Your task to perform on an android device: Open eBay Image 0: 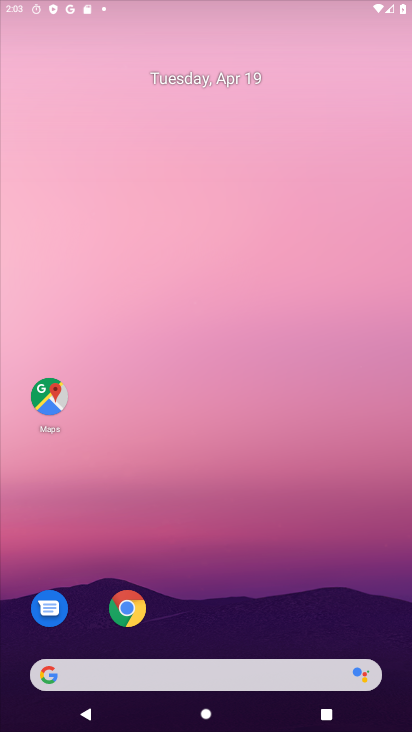
Step 0: drag from (312, 605) to (331, 295)
Your task to perform on an android device: Open eBay Image 1: 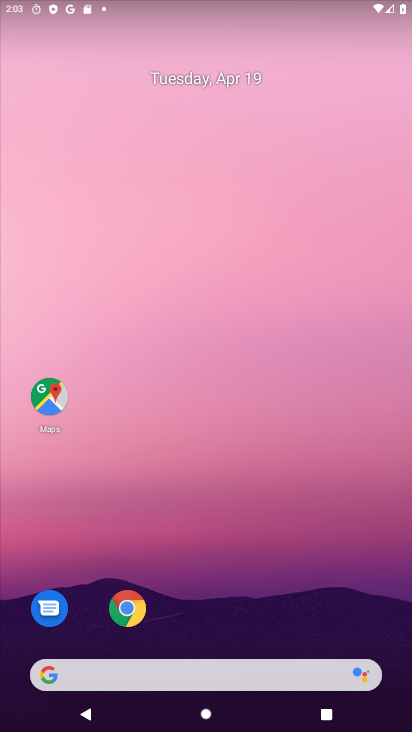
Step 1: drag from (257, 596) to (255, 85)
Your task to perform on an android device: Open eBay Image 2: 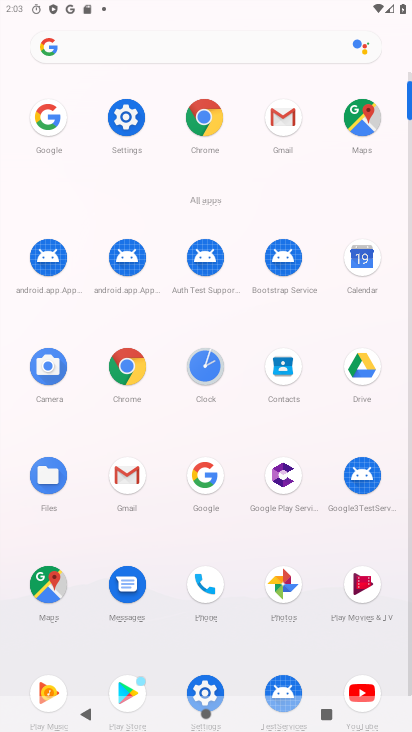
Step 2: click (209, 118)
Your task to perform on an android device: Open eBay Image 3: 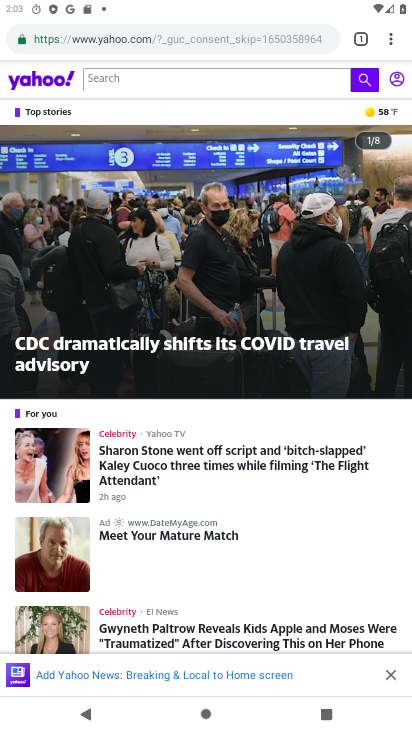
Step 3: press back button
Your task to perform on an android device: Open eBay Image 4: 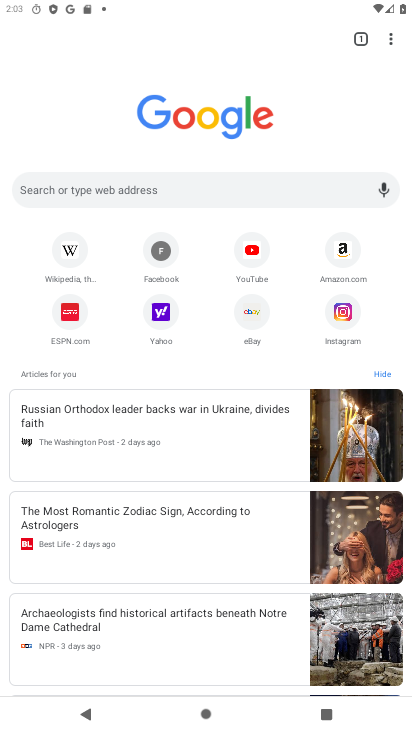
Step 4: click (251, 314)
Your task to perform on an android device: Open eBay Image 5: 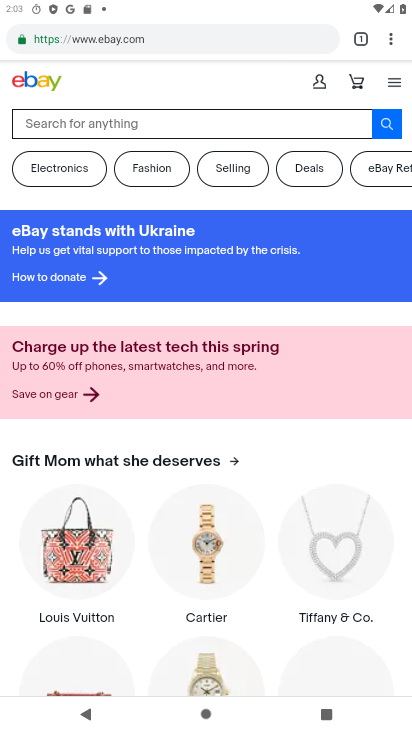
Step 5: task complete